Your task to perform on an android device: Set the phone to "Do not disturb". Image 0: 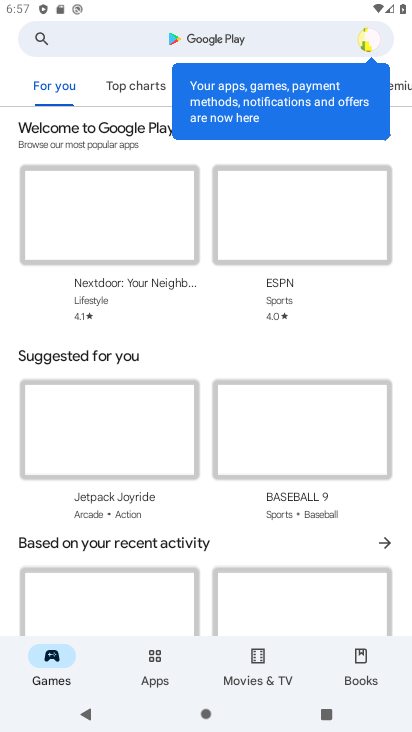
Step 0: drag from (177, 10) to (148, 474)
Your task to perform on an android device: Set the phone to "Do not disturb". Image 1: 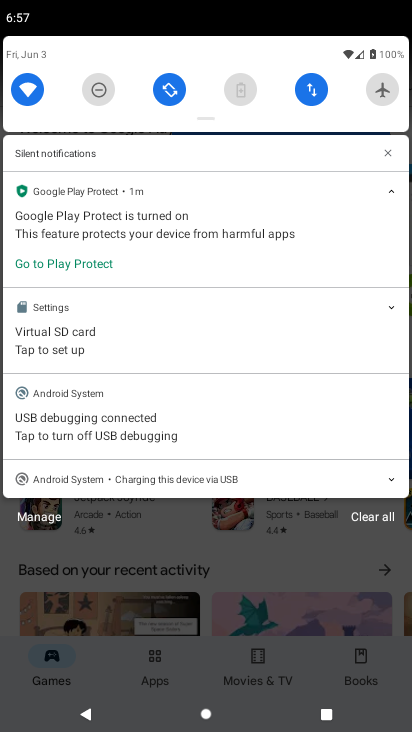
Step 1: click (98, 83)
Your task to perform on an android device: Set the phone to "Do not disturb". Image 2: 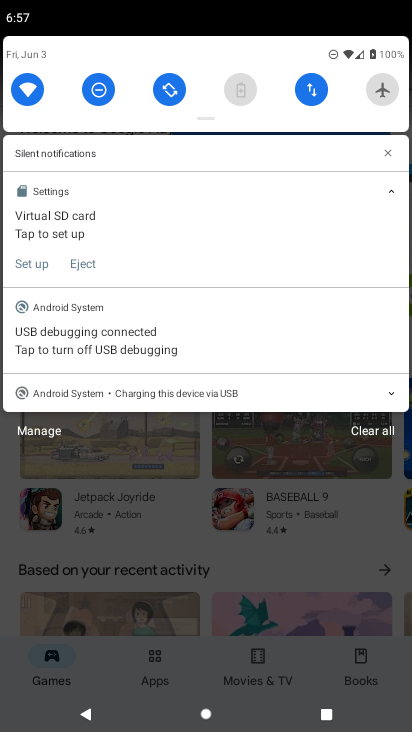
Step 2: task complete